Your task to perform on an android device: stop showing notifications on the lock screen Image 0: 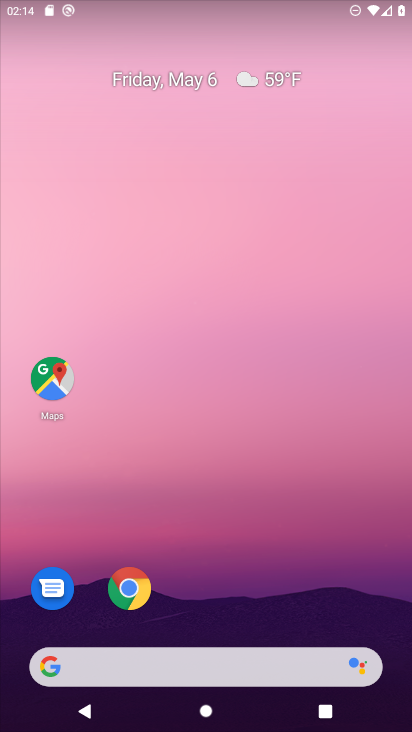
Step 0: drag from (200, 625) to (260, 122)
Your task to perform on an android device: stop showing notifications on the lock screen Image 1: 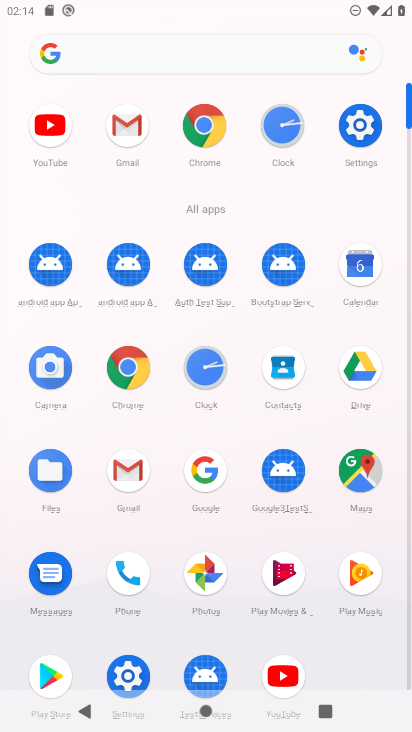
Step 1: click (369, 140)
Your task to perform on an android device: stop showing notifications on the lock screen Image 2: 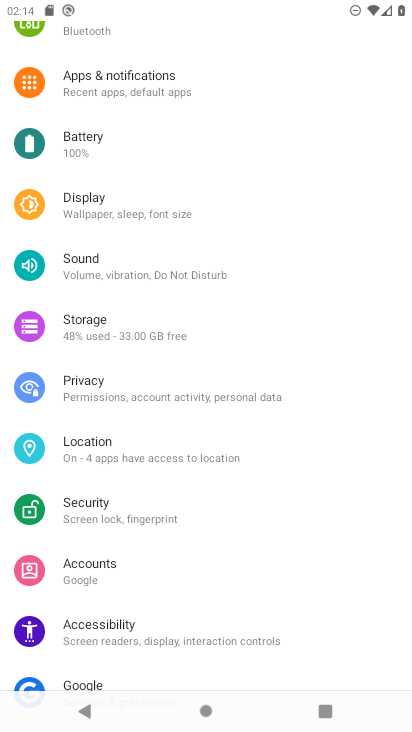
Step 2: click (139, 79)
Your task to perform on an android device: stop showing notifications on the lock screen Image 3: 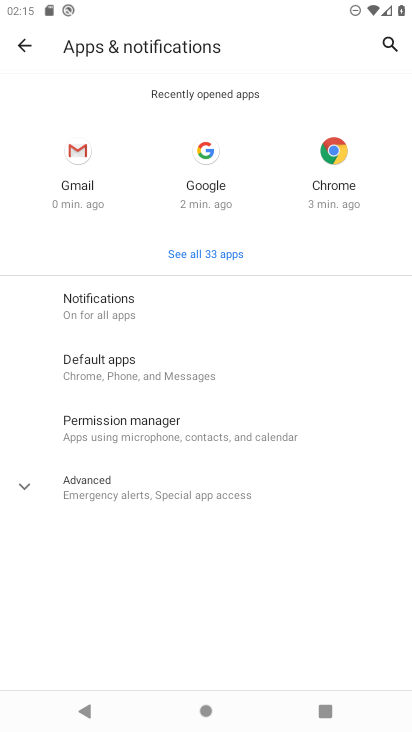
Step 3: click (214, 311)
Your task to perform on an android device: stop showing notifications on the lock screen Image 4: 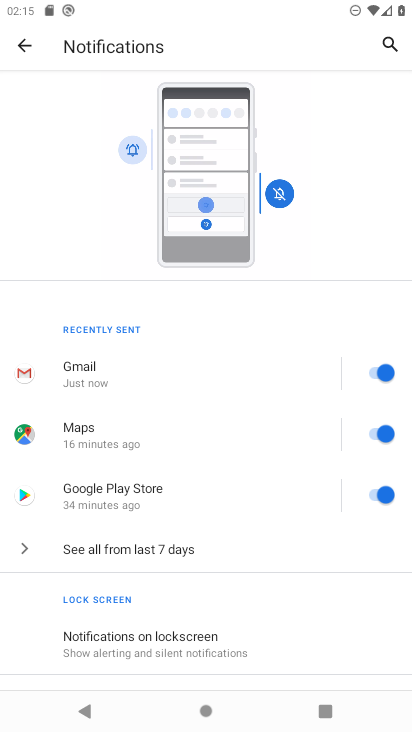
Step 4: drag from (193, 659) to (237, 375)
Your task to perform on an android device: stop showing notifications on the lock screen Image 5: 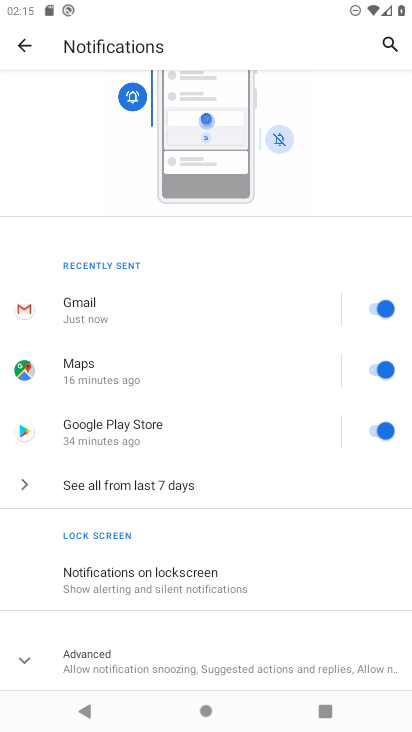
Step 5: click (214, 587)
Your task to perform on an android device: stop showing notifications on the lock screen Image 6: 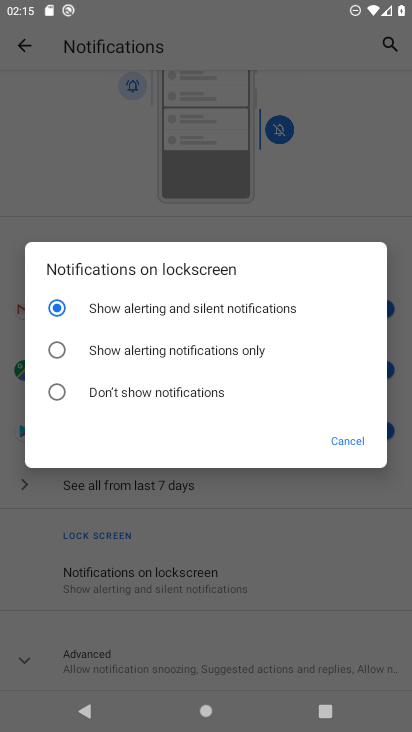
Step 6: click (147, 406)
Your task to perform on an android device: stop showing notifications on the lock screen Image 7: 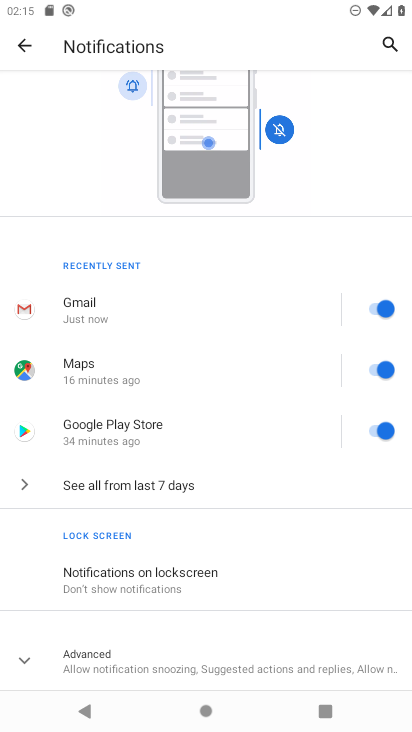
Step 7: task complete